Your task to perform on an android device: open chrome and create a bookmark for the current page Image 0: 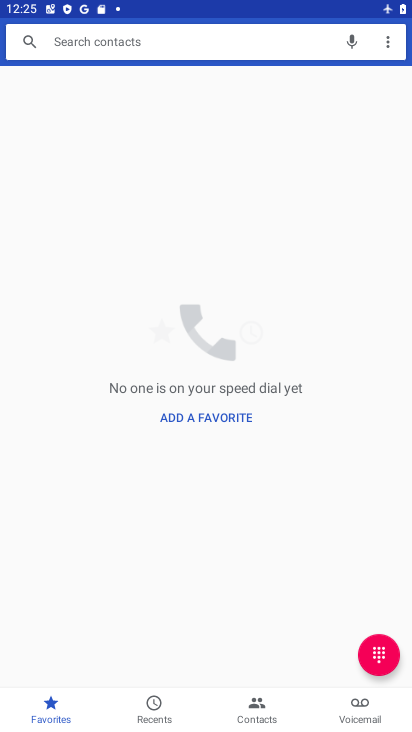
Step 0: drag from (264, 638) to (333, 389)
Your task to perform on an android device: open chrome and create a bookmark for the current page Image 1: 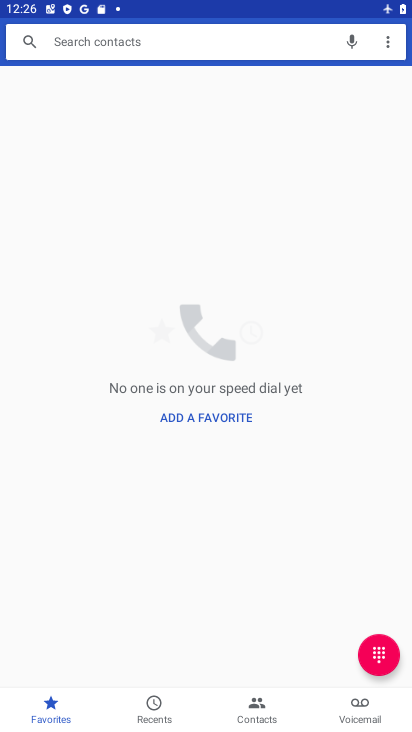
Step 1: press home button
Your task to perform on an android device: open chrome and create a bookmark for the current page Image 2: 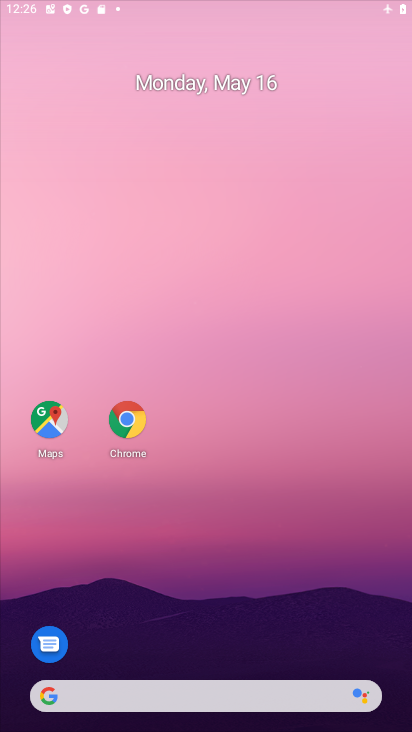
Step 2: drag from (261, 631) to (338, 334)
Your task to perform on an android device: open chrome and create a bookmark for the current page Image 3: 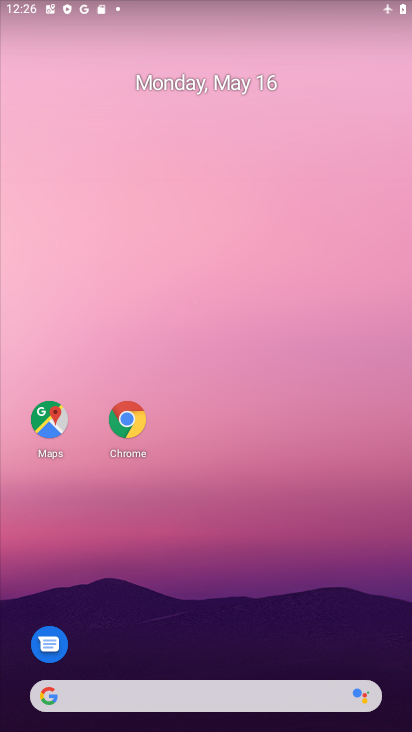
Step 3: click (121, 412)
Your task to perform on an android device: open chrome and create a bookmark for the current page Image 4: 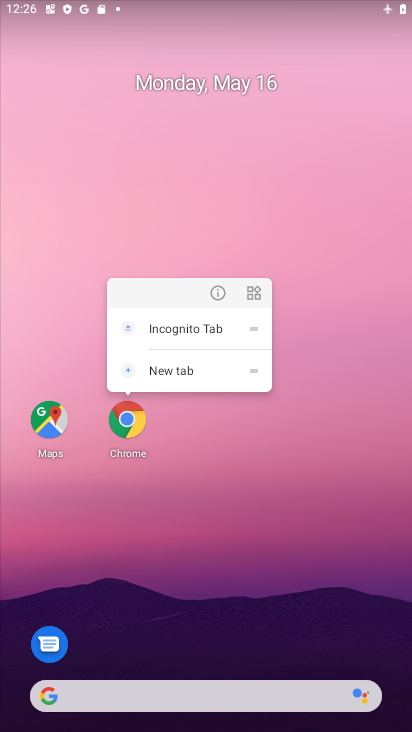
Step 4: click (209, 292)
Your task to perform on an android device: open chrome and create a bookmark for the current page Image 5: 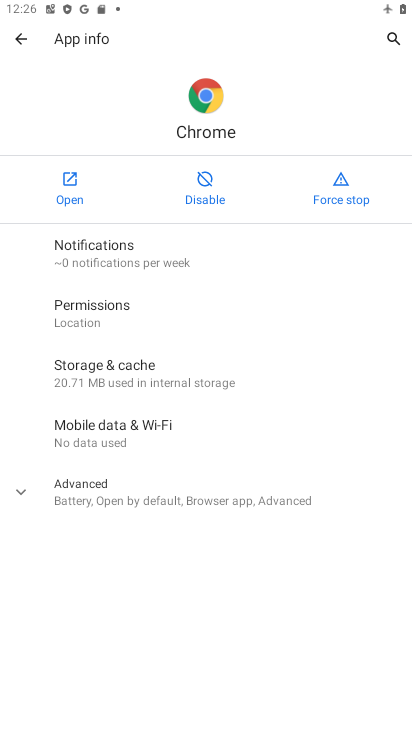
Step 5: click (54, 189)
Your task to perform on an android device: open chrome and create a bookmark for the current page Image 6: 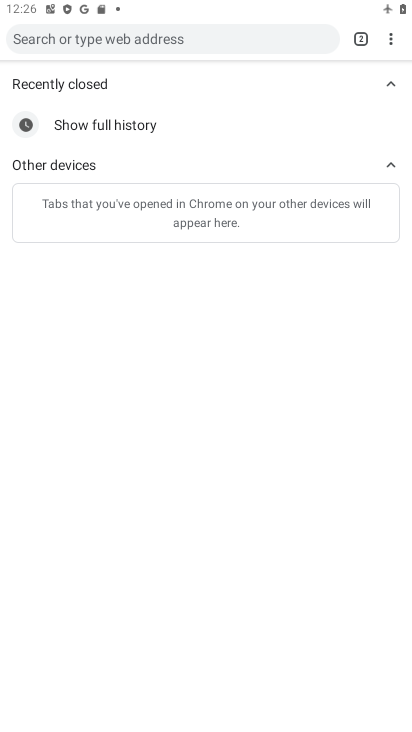
Step 6: task complete